Your task to perform on an android device: check android version Image 0: 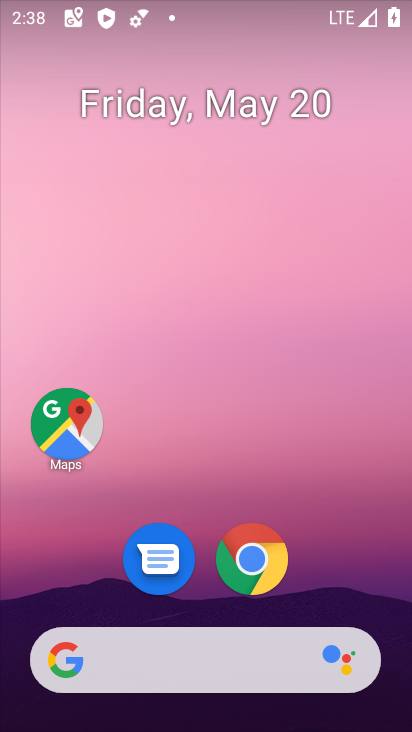
Step 0: drag from (324, 506) to (330, 33)
Your task to perform on an android device: check android version Image 1: 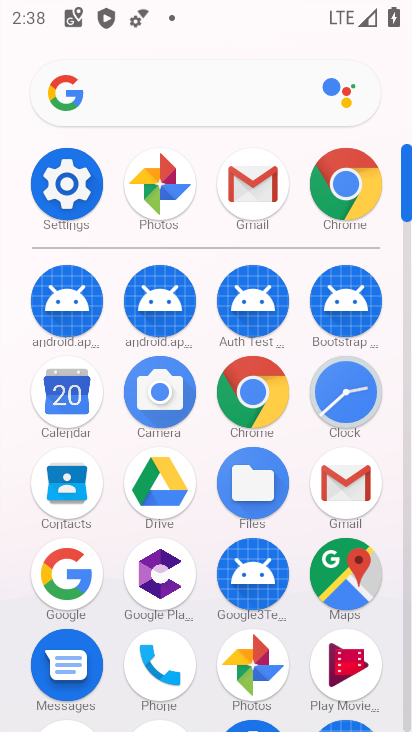
Step 1: click (62, 194)
Your task to perform on an android device: check android version Image 2: 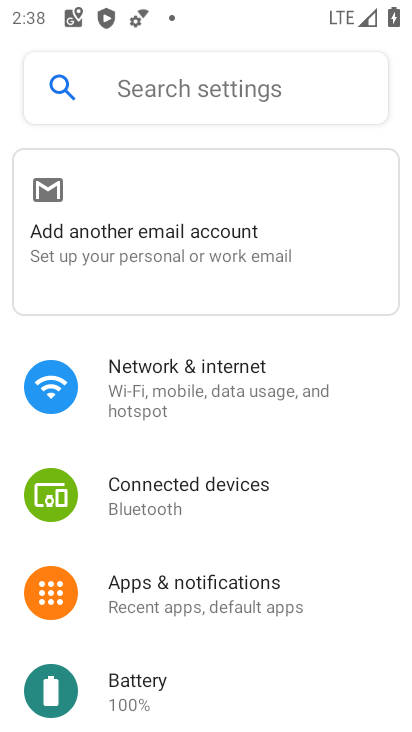
Step 2: drag from (259, 625) to (187, 169)
Your task to perform on an android device: check android version Image 3: 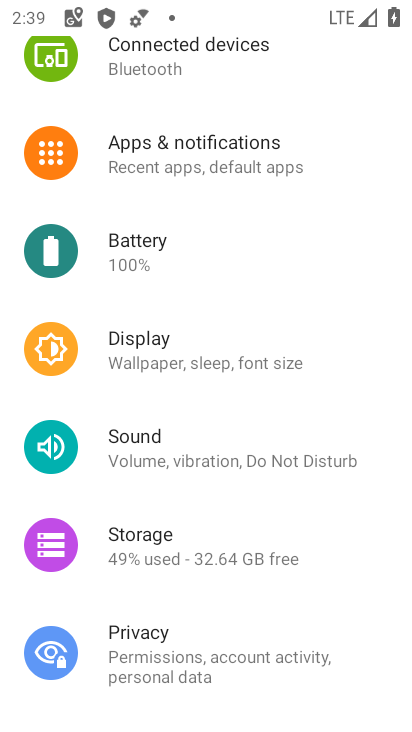
Step 3: drag from (225, 618) to (182, 199)
Your task to perform on an android device: check android version Image 4: 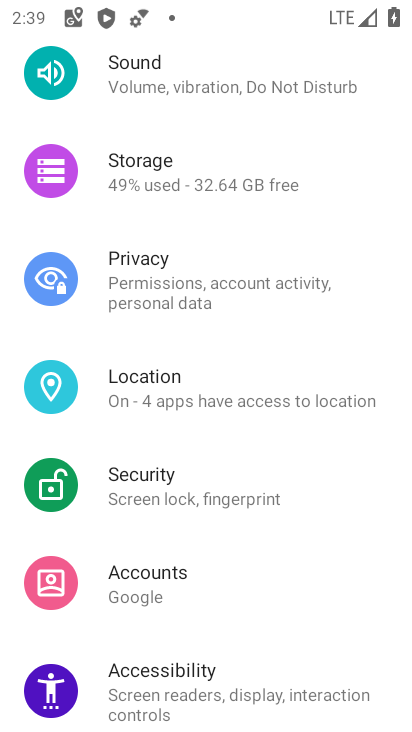
Step 4: drag from (231, 544) to (183, 170)
Your task to perform on an android device: check android version Image 5: 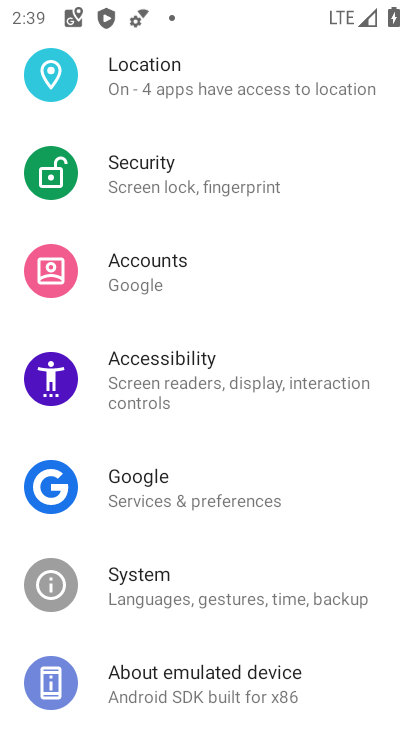
Step 5: click (251, 663)
Your task to perform on an android device: check android version Image 6: 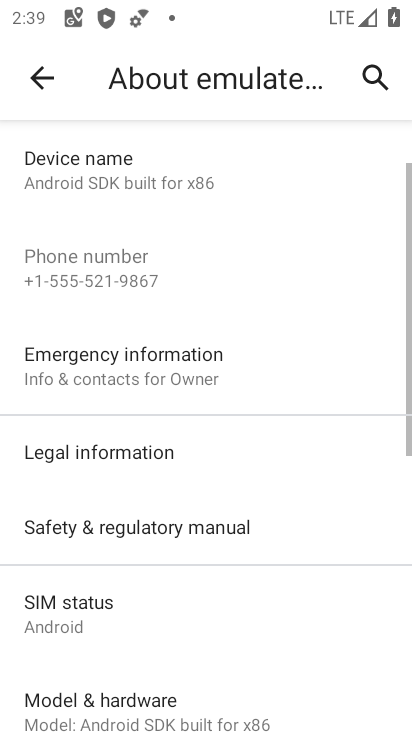
Step 6: drag from (256, 619) to (203, 228)
Your task to perform on an android device: check android version Image 7: 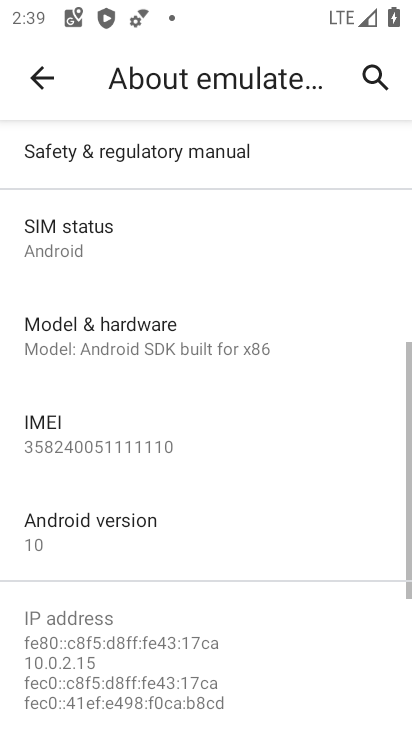
Step 7: click (193, 544)
Your task to perform on an android device: check android version Image 8: 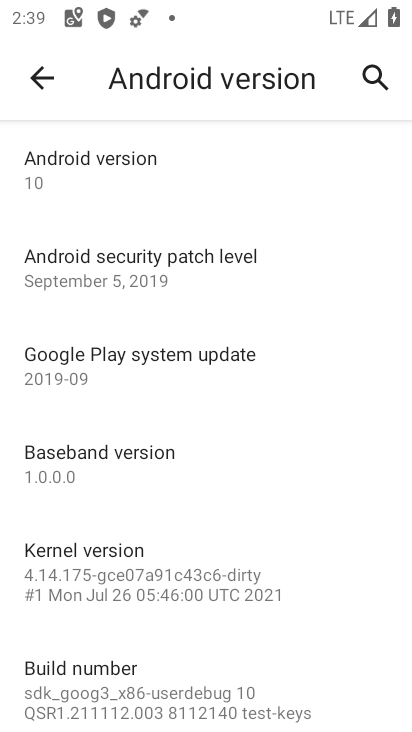
Step 8: task complete